Your task to perform on an android device: see creations saved in the google photos Image 0: 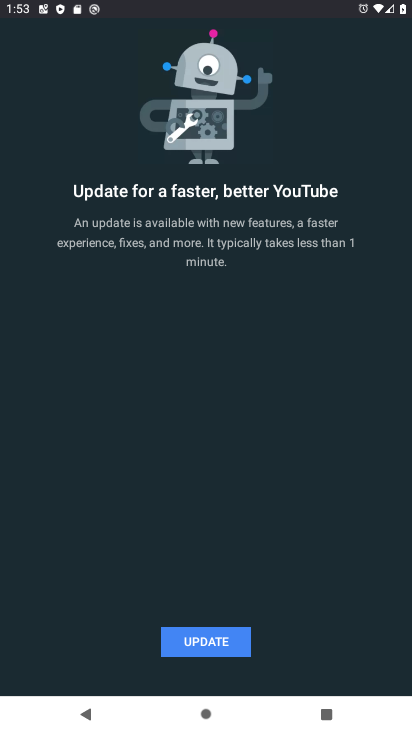
Step 0: press home button
Your task to perform on an android device: see creations saved in the google photos Image 1: 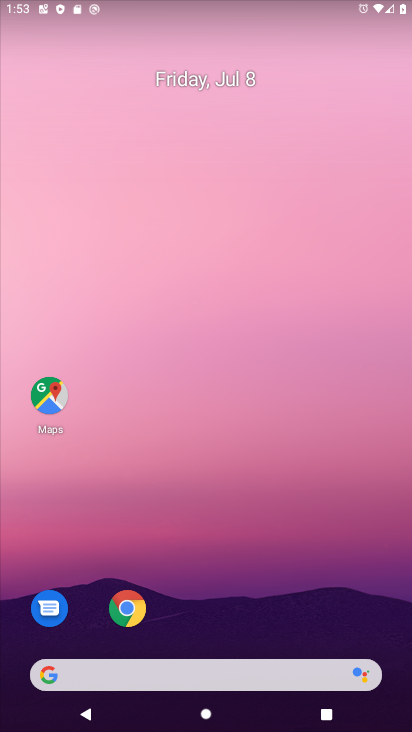
Step 1: drag from (207, 618) to (139, 2)
Your task to perform on an android device: see creations saved in the google photos Image 2: 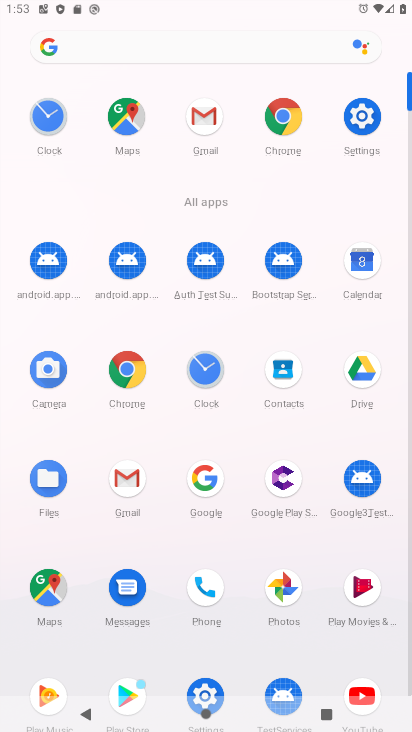
Step 2: click (272, 585)
Your task to perform on an android device: see creations saved in the google photos Image 3: 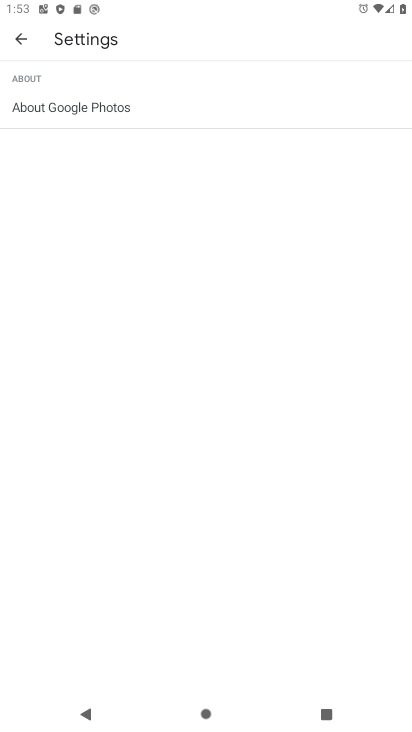
Step 3: click (24, 40)
Your task to perform on an android device: see creations saved in the google photos Image 4: 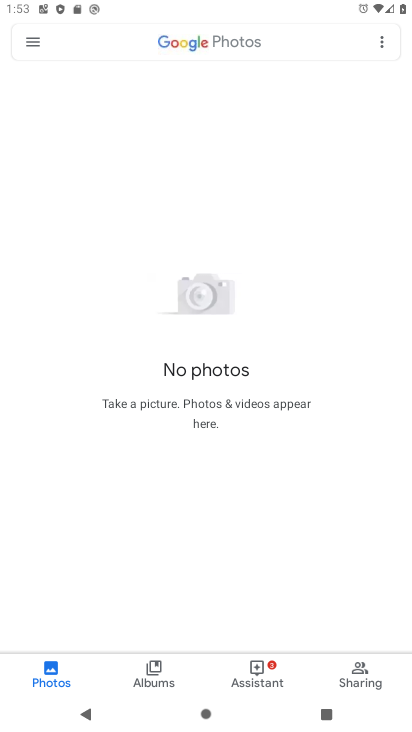
Step 4: click (256, 680)
Your task to perform on an android device: see creations saved in the google photos Image 5: 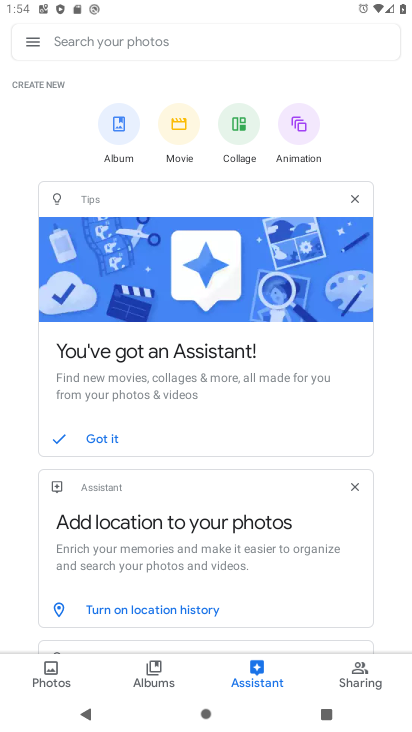
Step 5: task complete